Your task to perform on an android device: What's the weather going to be tomorrow? Image 0: 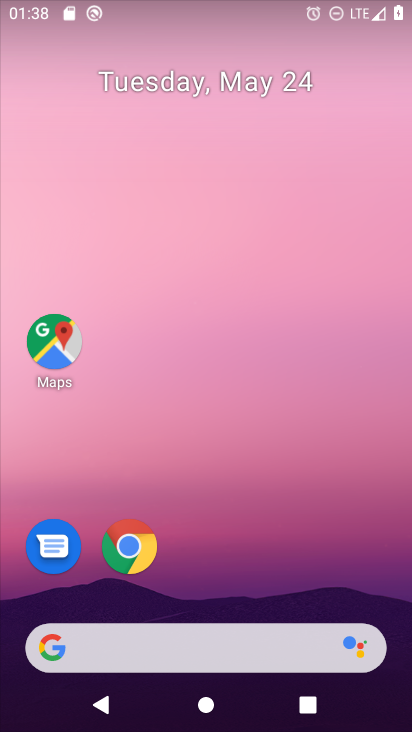
Step 0: drag from (205, 639) to (381, 27)
Your task to perform on an android device: What's the weather going to be tomorrow? Image 1: 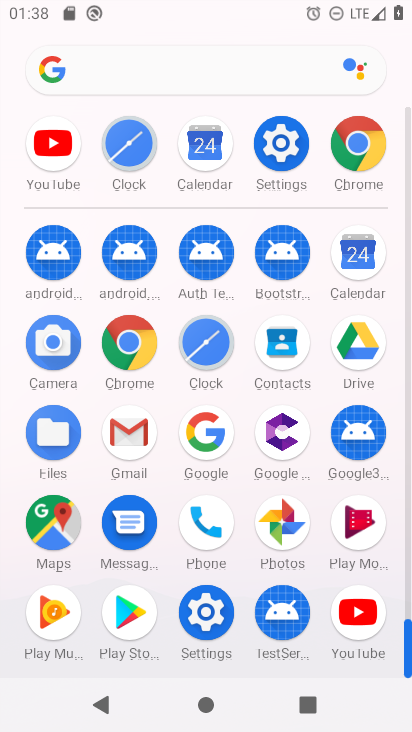
Step 1: press home button
Your task to perform on an android device: What's the weather going to be tomorrow? Image 2: 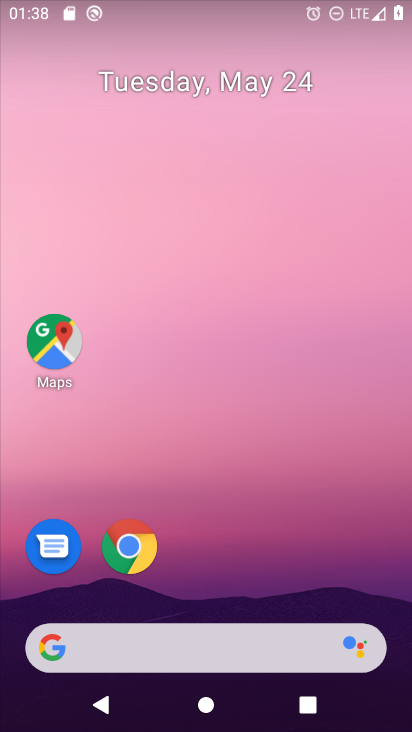
Step 2: drag from (112, 348) to (399, 367)
Your task to perform on an android device: What's the weather going to be tomorrow? Image 3: 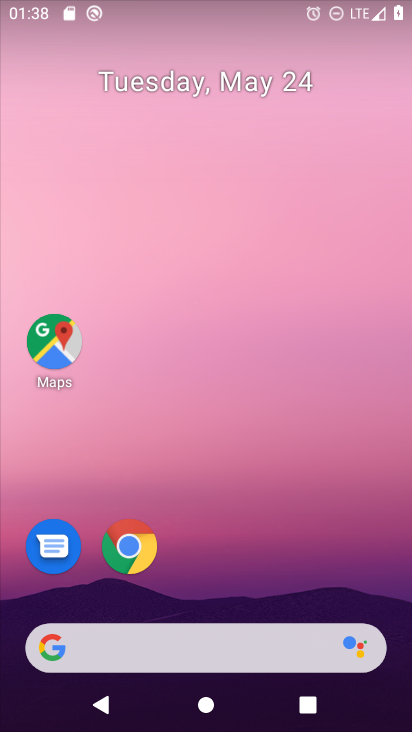
Step 3: drag from (22, 196) to (408, 182)
Your task to perform on an android device: What's the weather going to be tomorrow? Image 4: 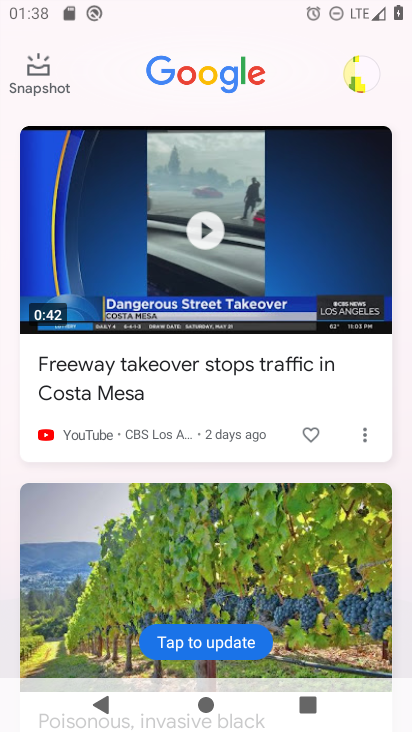
Step 4: press home button
Your task to perform on an android device: What's the weather going to be tomorrow? Image 5: 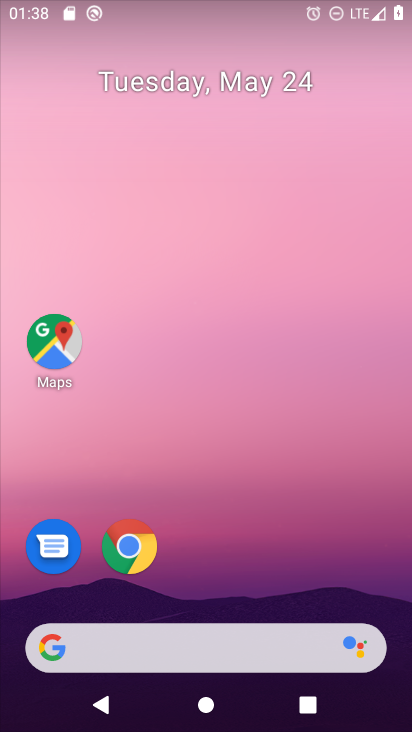
Step 5: drag from (225, 634) to (299, 31)
Your task to perform on an android device: What's the weather going to be tomorrow? Image 6: 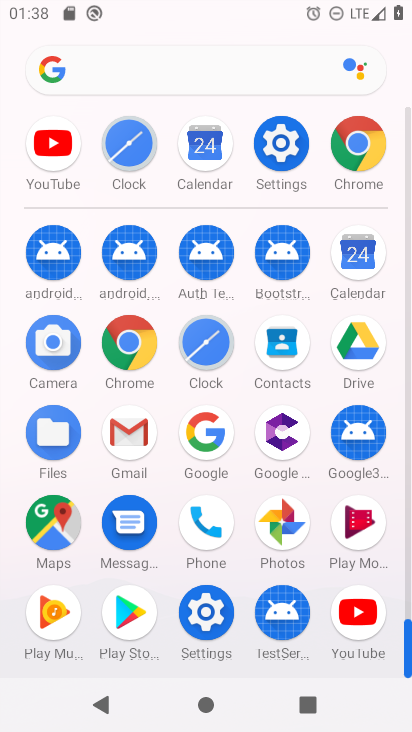
Step 6: click (138, 353)
Your task to perform on an android device: What's the weather going to be tomorrow? Image 7: 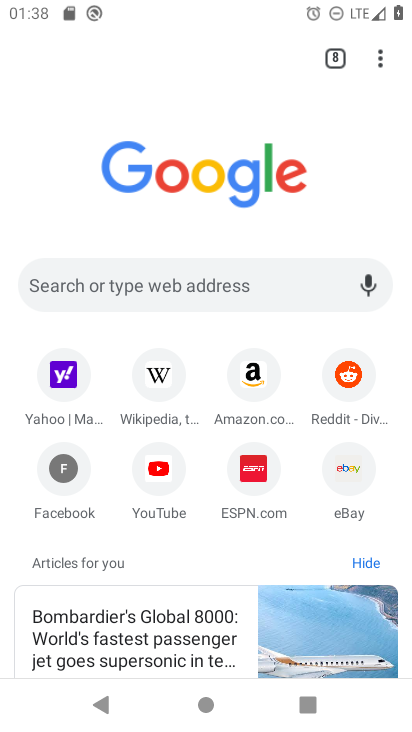
Step 7: click (251, 286)
Your task to perform on an android device: What's the weather going to be tomorrow? Image 8: 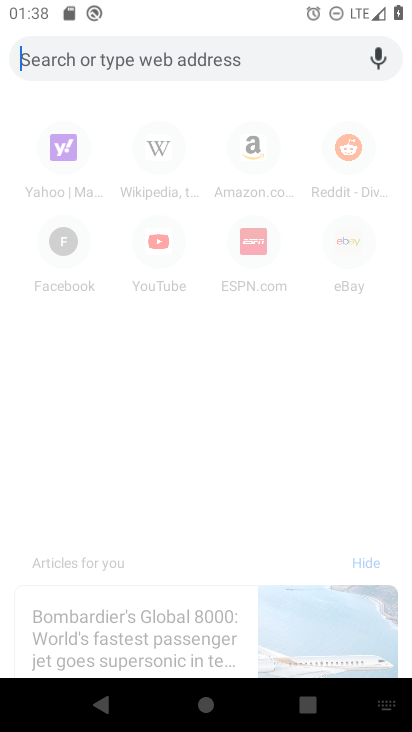
Step 8: type "weather"
Your task to perform on an android device: What's the weather going to be tomorrow? Image 9: 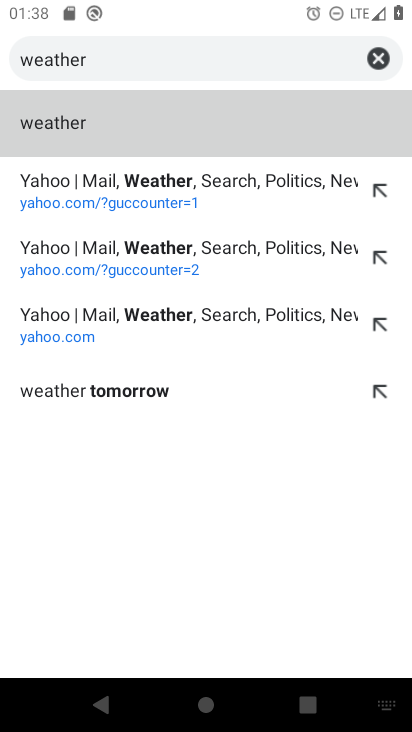
Step 9: click (103, 104)
Your task to perform on an android device: What's the weather going to be tomorrow? Image 10: 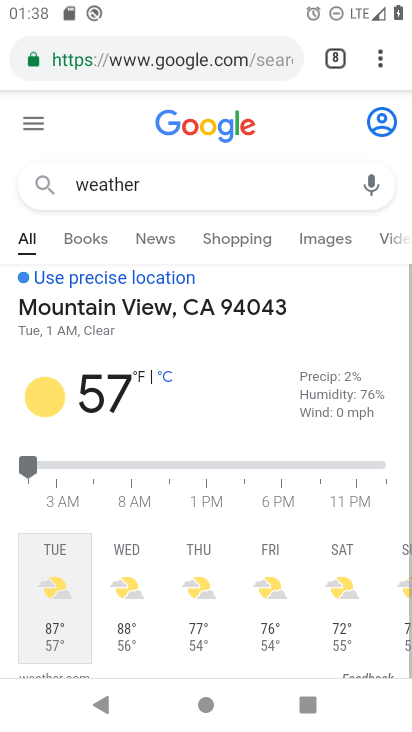
Step 10: drag from (231, 524) to (330, 21)
Your task to perform on an android device: What's the weather going to be tomorrow? Image 11: 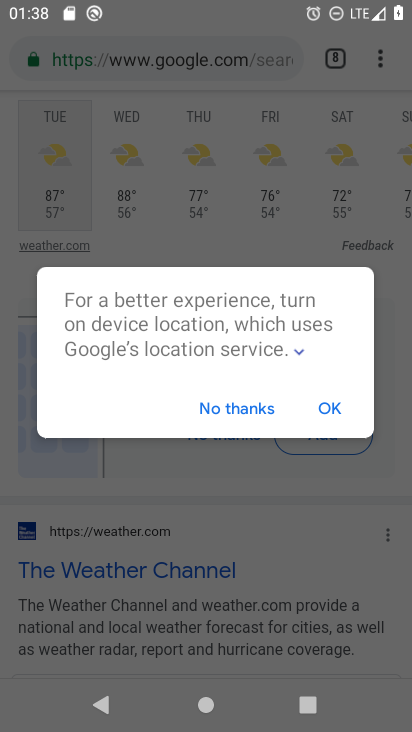
Step 11: click (223, 406)
Your task to perform on an android device: What's the weather going to be tomorrow? Image 12: 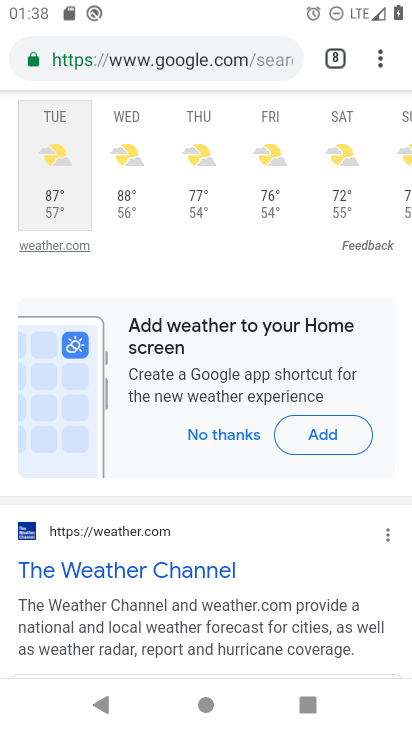
Step 12: task complete